Your task to perform on an android device: open a bookmark in the chrome app Image 0: 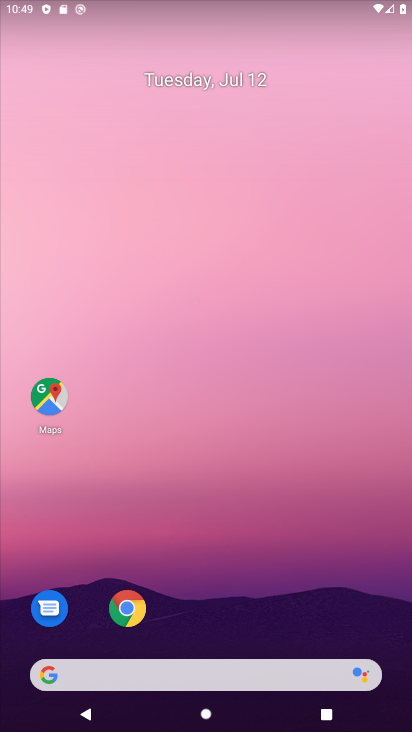
Step 0: click (134, 617)
Your task to perform on an android device: open a bookmark in the chrome app Image 1: 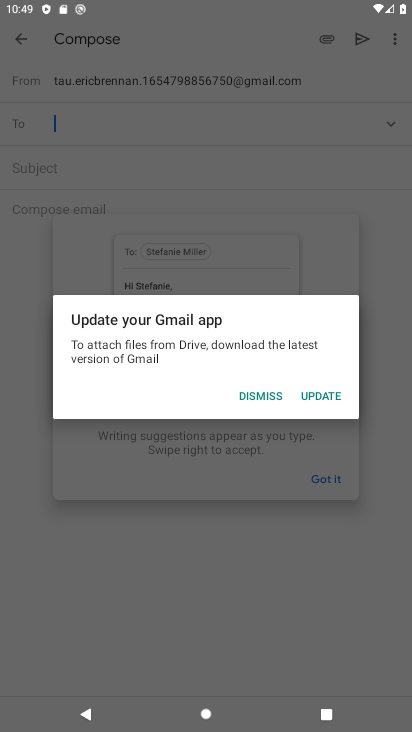
Step 1: click (196, 550)
Your task to perform on an android device: open a bookmark in the chrome app Image 2: 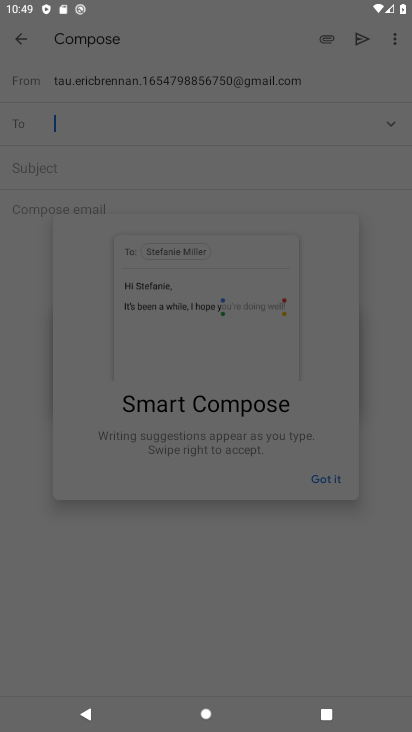
Step 2: press home button
Your task to perform on an android device: open a bookmark in the chrome app Image 3: 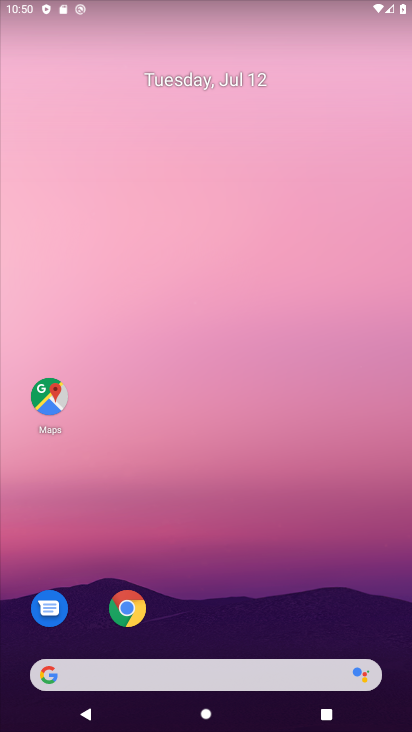
Step 3: click (138, 622)
Your task to perform on an android device: open a bookmark in the chrome app Image 4: 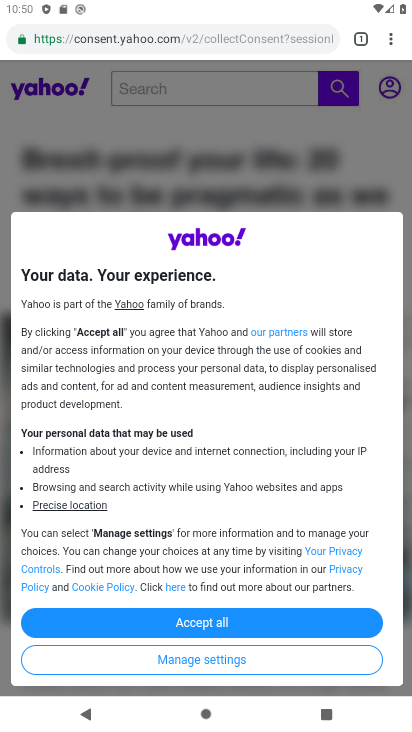
Step 4: click (404, 43)
Your task to perform on an android device: open a bookmark in the chrome app Image 5: 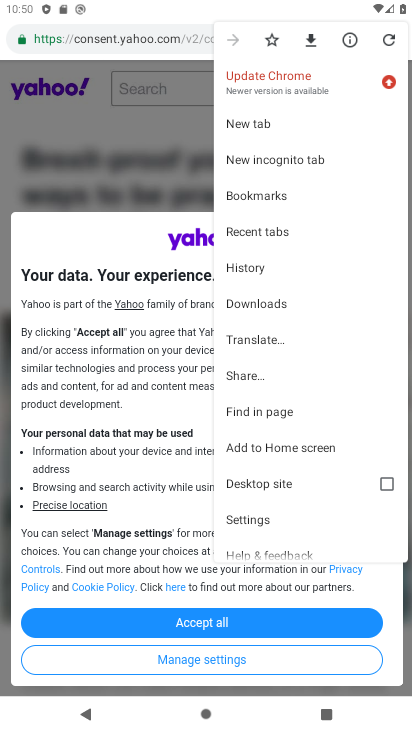
Step 5: click (270, 201)
Your task to perform on an android device: open a bookmark in the chrome app Image 6: 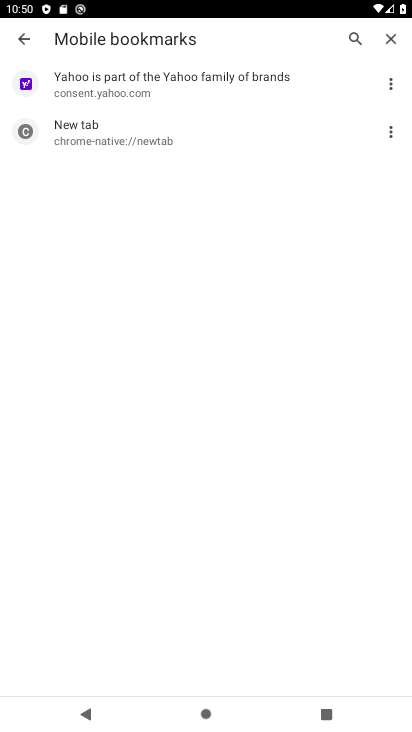
Step 6: click (185, 96)
Your task to perform on an android device: open a bookmark in the chrome app Image 7: 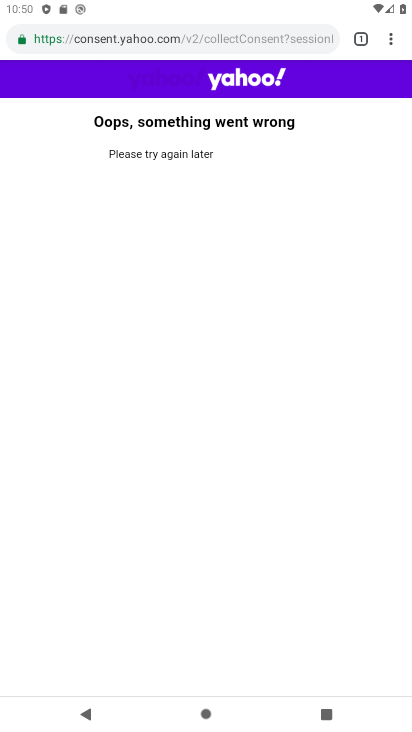
Step 7: task complete